Your task to perform on an android device: toggle pop-ups in chrome Image 0: 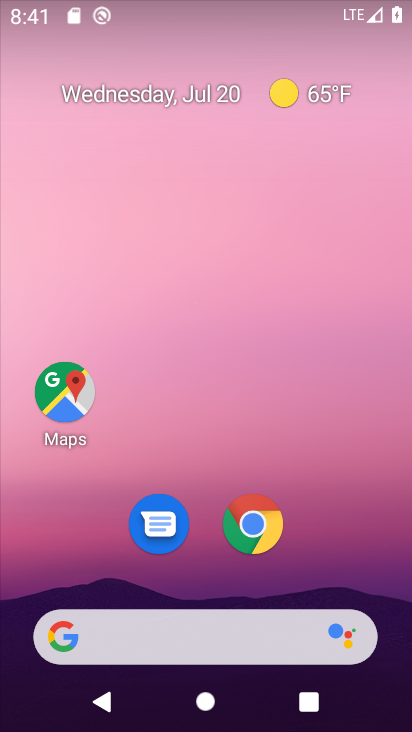
Step 0: click (259, 516)
Your task to perform on an android device: toggle pop-ups in chrome Image 1: 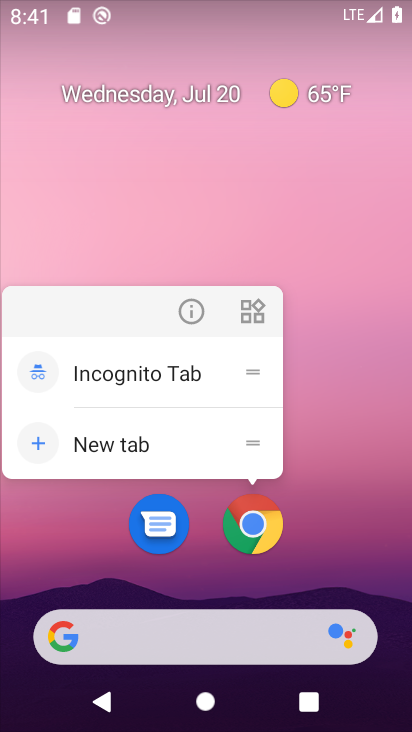
Step 1: click (190, 289)
Your task to perform on an android device: toggle pop-ups in chrome Image 2: 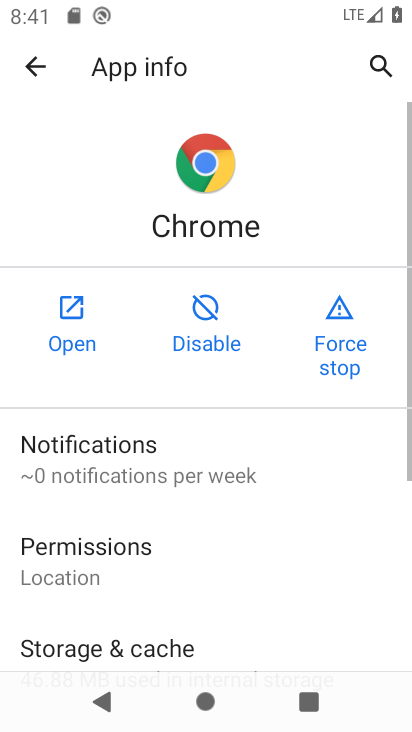
Step 2: drag from (143, 559) to (229, 34)
Your task to perform on an android device: toggle pop-ups in chrome Image 3: 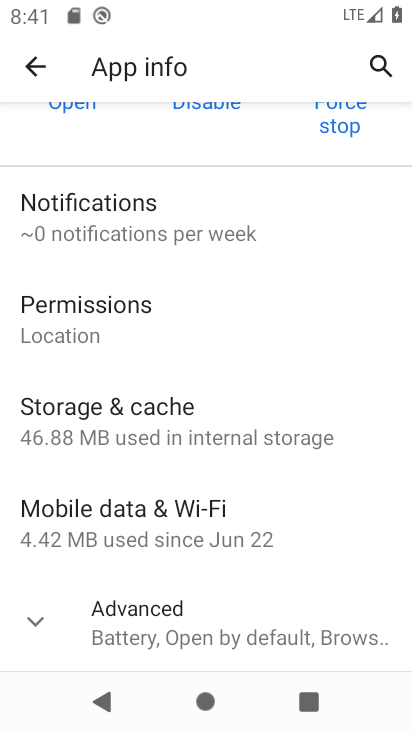
Step 3: click (40, 623)
Your task to perform on an android device: toggle pop-ups in chrome Image 4: 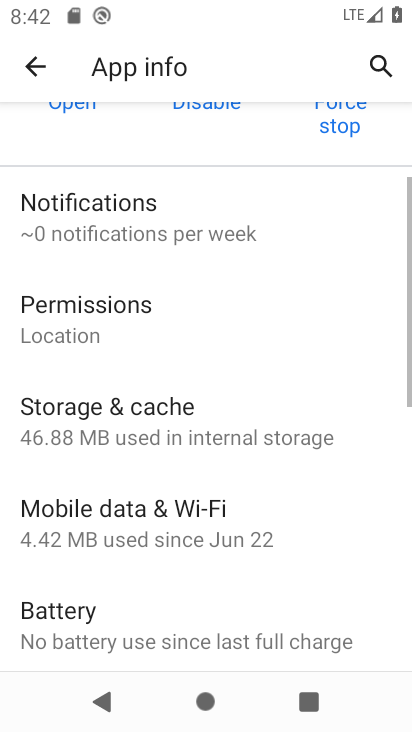
Step 4: drag from (200, 594) to (252, 121)
Your task to perform on an android device: toggle pop-ups in chrome Image 5: 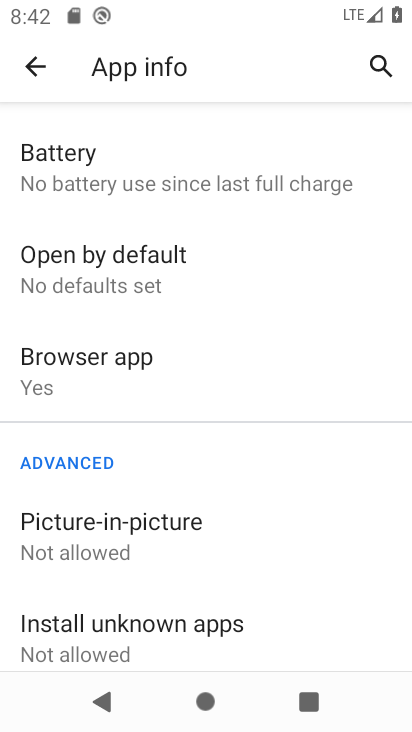
Step 5: click (129, 530)
Your task to perform on an android device: toggle pop-ups in chrome Image 6: 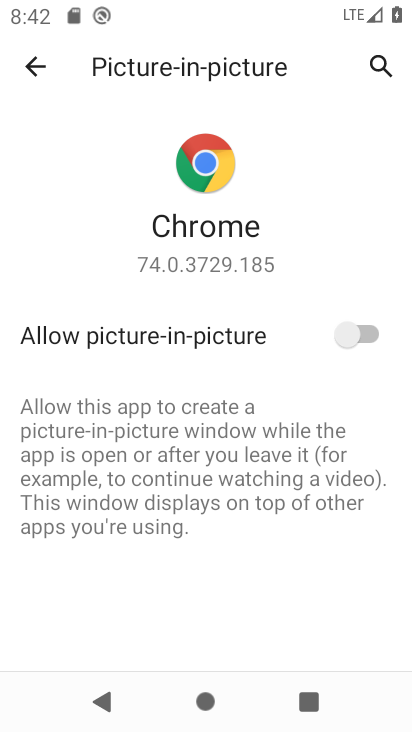
Step 6: click (348, 319)
Your task to perform on an android device: toggle pop-ups in chrome Image 7: 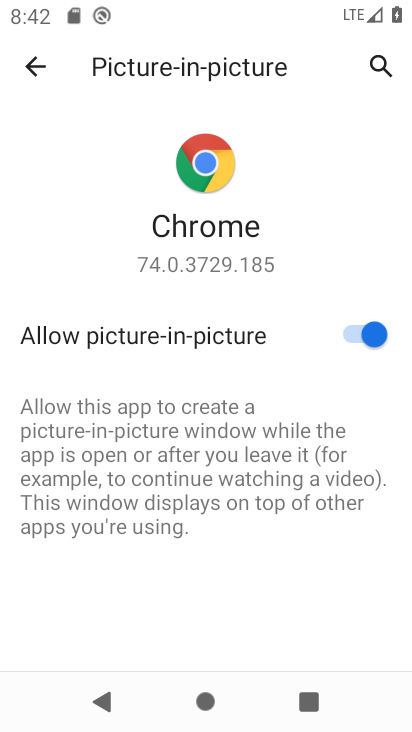
Step 7: task complete